Your task to perform on an android device: Open calendar and show me the third week of next month Image 0: 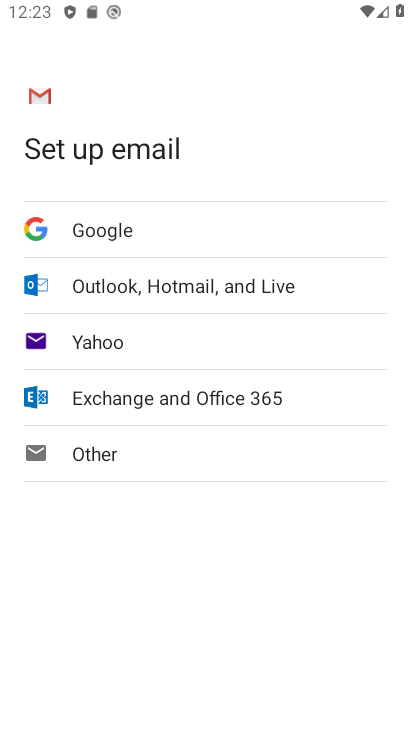
Step 0: press home button
Your task to perform on an android device: Open calendar and show me the third week of next month Image 1: 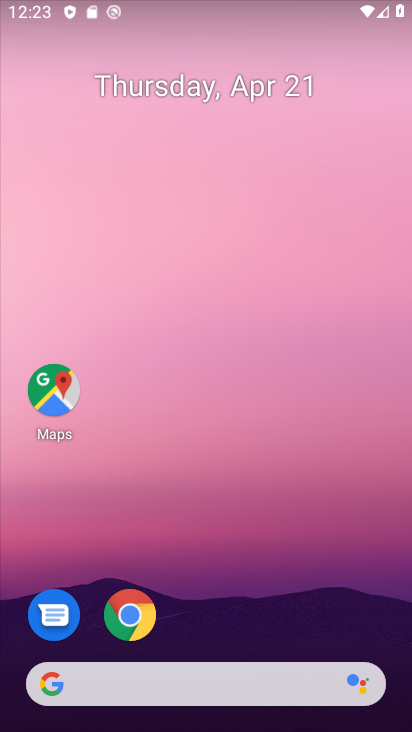
Step 1: drag from (302, 614) to (282, 64)
Your task to perform on an android device: Open calendar and show me the third week of next month Image 2: 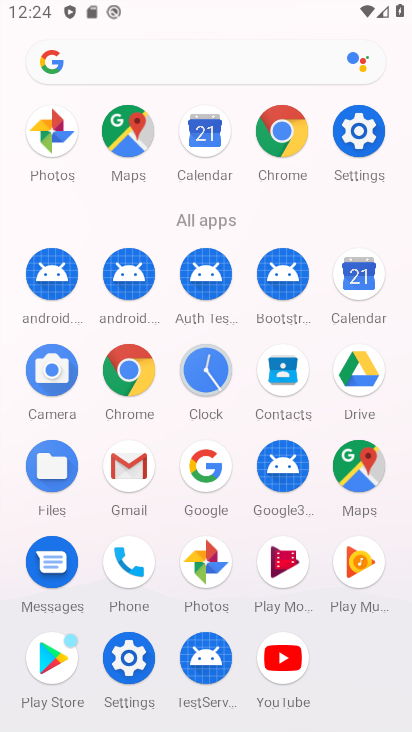
Step 2: click (374, 277)
Your task to perform on an android device: Open calendar and show me the third week of next month Image 3: 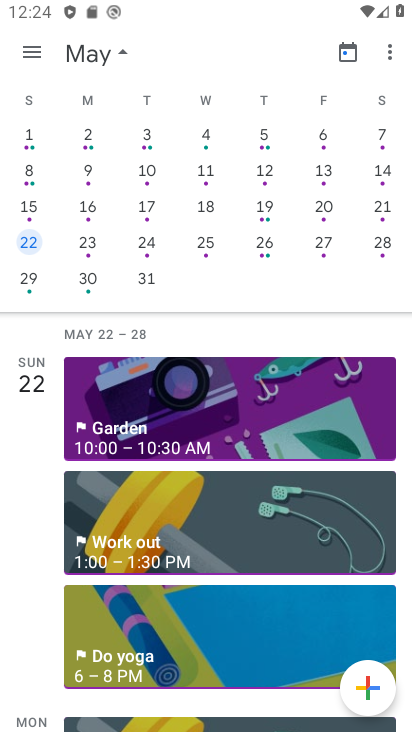
Step 3: click (23, 202)
Your task to perform on an android device: Open calendar and show me the third week of next month Image 4: 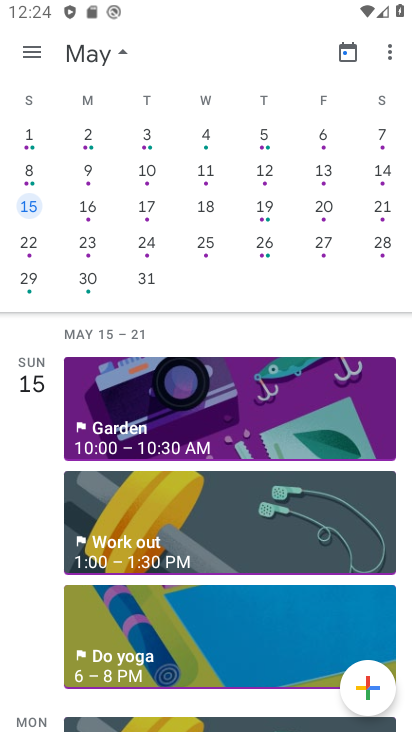
Step 4: task complete